Your task to perform on an android device: Open the map Image 0: 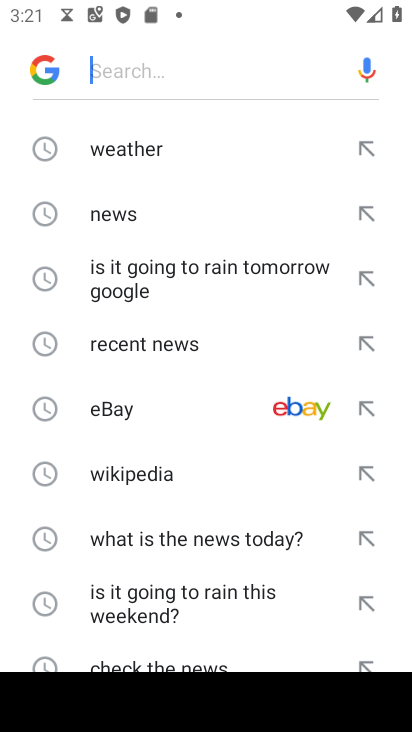
Step 0: press back button
Your task to perform on an android device: Open the map Image 1: 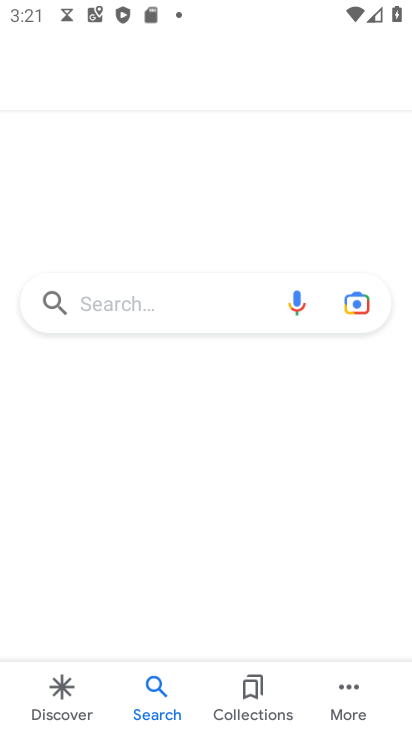
Step 1: press back button
Your task to perform on an android device: Open the map Image 2: 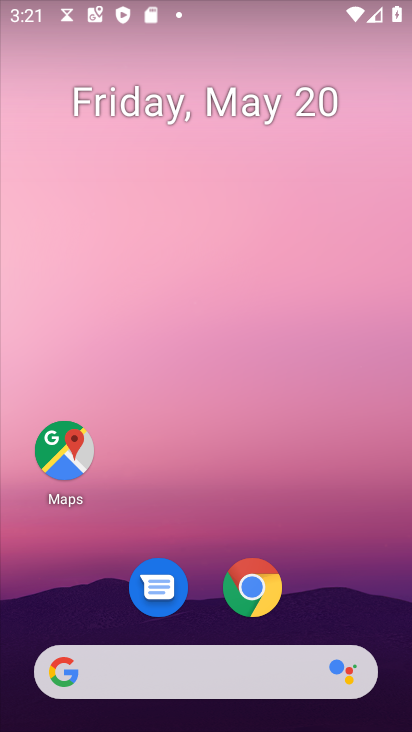
Step 2: click (49, 456)
Your task to perform on an android device: Open the map Image 3: 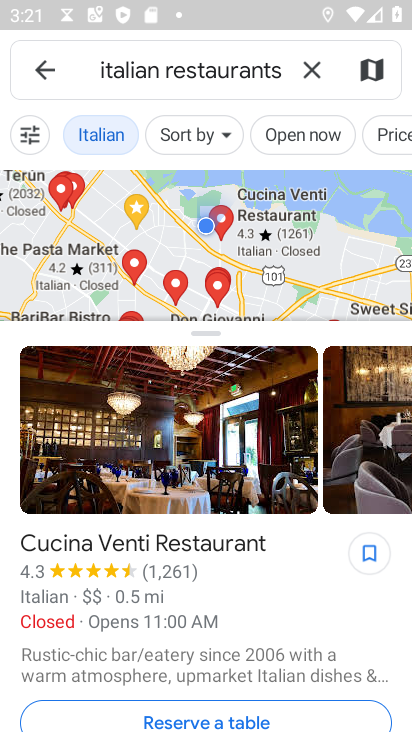
Step 3: task complete